Your task to perform on an android device: see creations saved in the google photos Image 0: 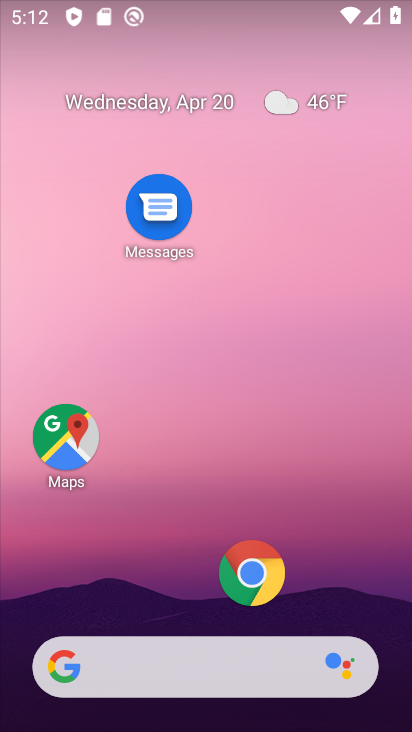
Step 0: drag from (182, 611) to (245, 128)
Your task to perform on an android device: see creations saved in the google photos Image 1: 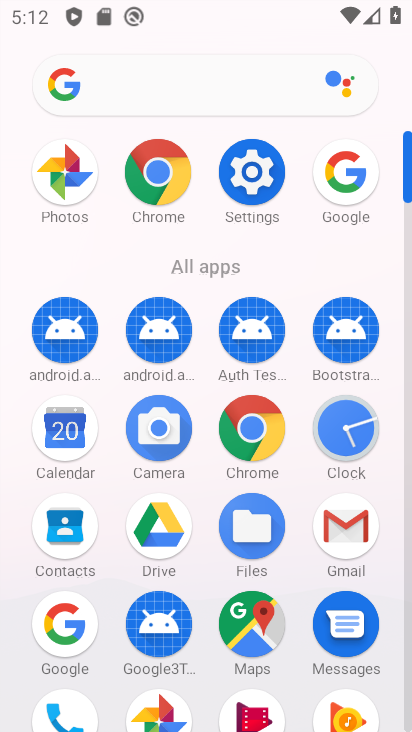
Step 1: click (53, 192)
Your task to perform on an android device: see creations saved in the google photos Image 2: 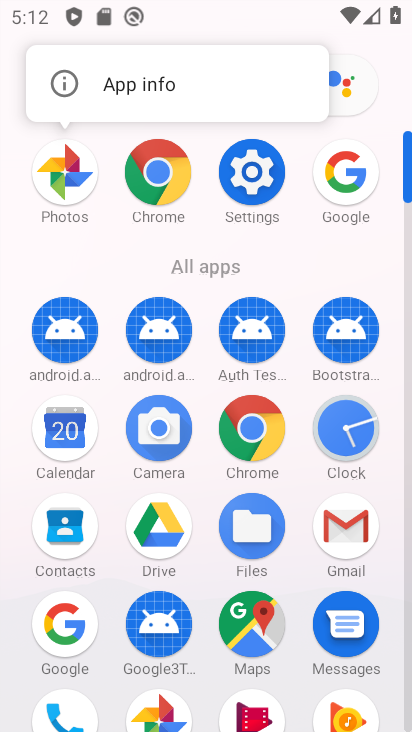
Step 2: click (53, 192)
Your task to perform on an android device: see creations saved in the google photos Image 3: 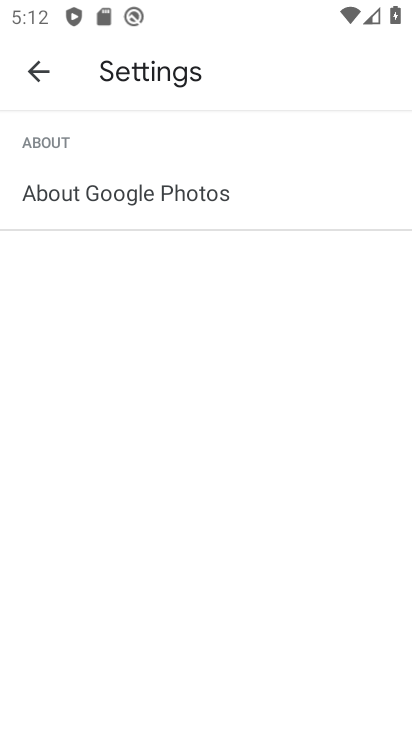
Step 3: click (38, 61)
Your task to perform on an android device: see creations saved in the google photos Image 4: 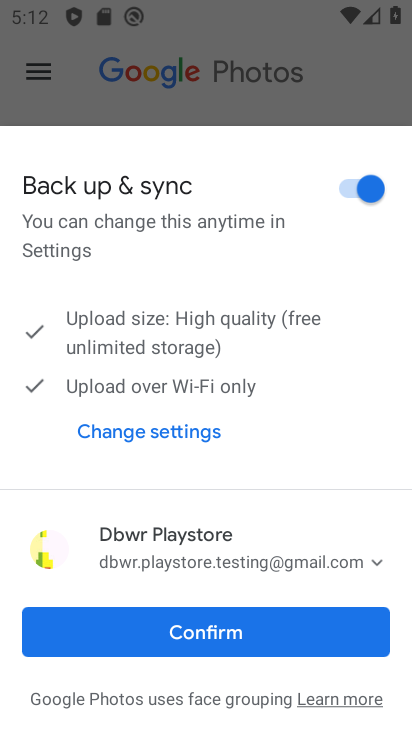
Step 4: click (254, 632)
Your task to perform on an android device: see creations saved in the google photos Image 5: 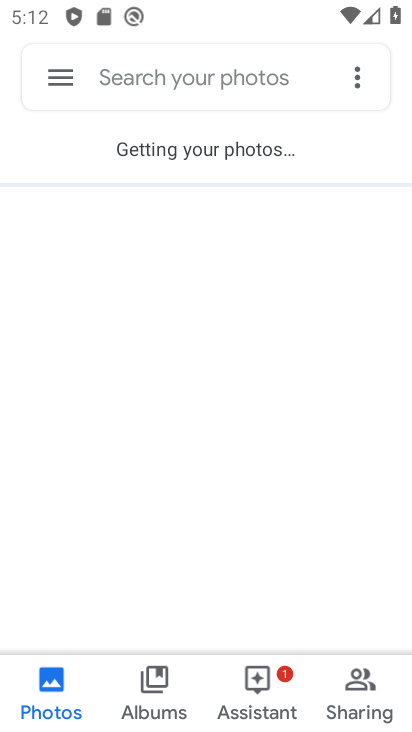
Step 5: click (187, 85)
Your task to perform on an android device: see creations saved in the google photos Image 6: 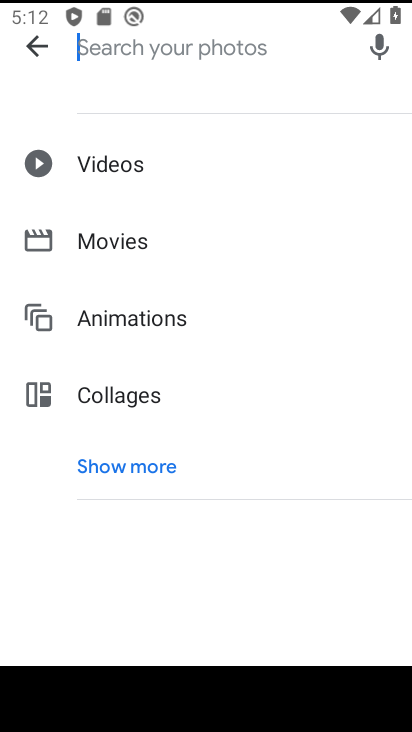
Step 6: click (153, 460)
Your task to perform on an android device: see creations saved in the google photos Image 7: 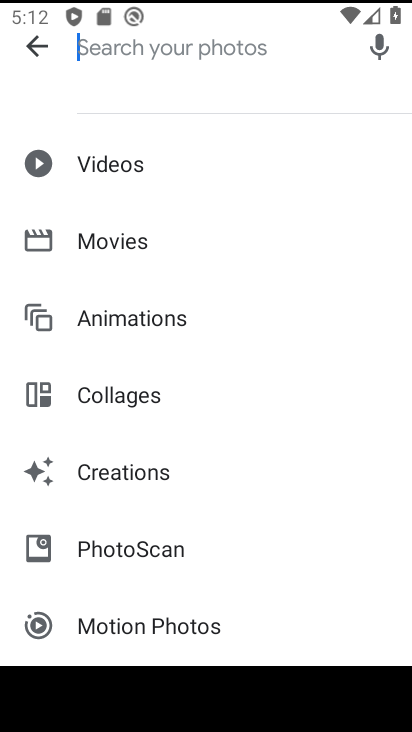
Step 7: click (130, 482)
Your task to perform on an android device: see creations saved in the google photos Image 8: 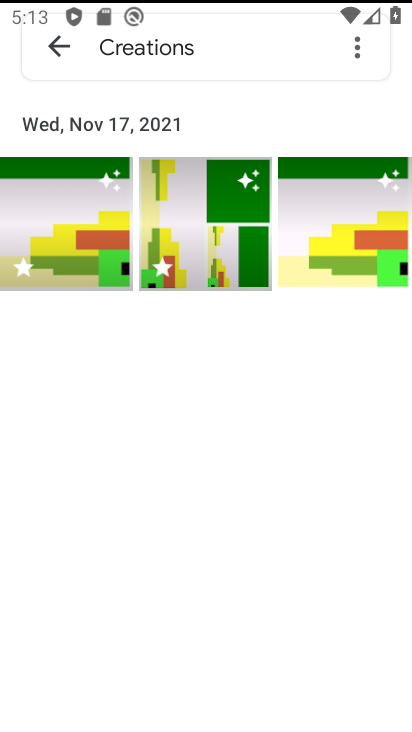
Step 8: task complete